Your task to perform on an android device: empty trash in google photos Image 0: 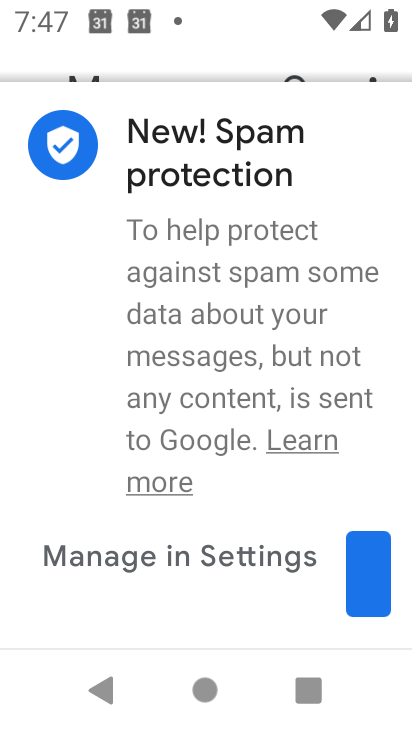
Step 0: press home button
Your task to perform on an android device: empty trash in google photos Image 1: 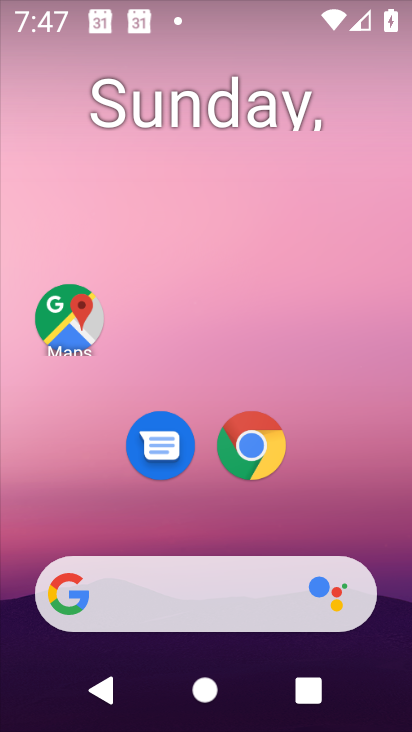
Step 1: drag from (45, 613) to (229, 194)
Your task to perform on an android device: empty trash in google photos Image 2: 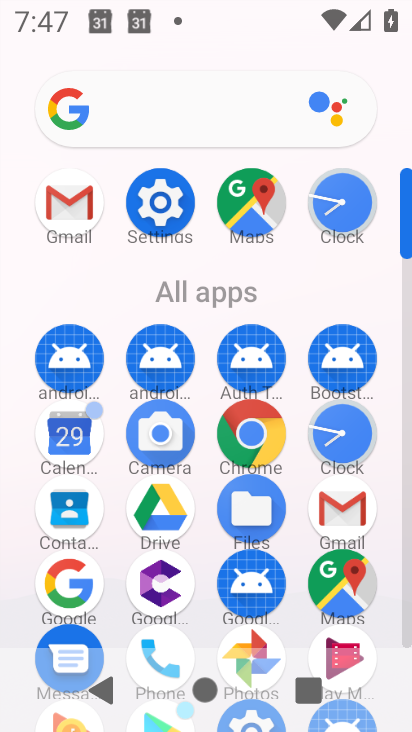
Step 2: click (248, 638)
Your task to perform on an android device: empty trash in google photos Image 3: 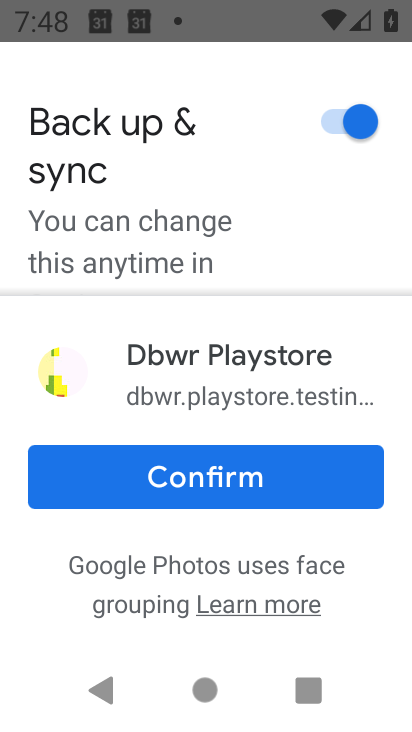
Step 3: click (154, 461)
Your task to perform on an android device: empty trash in google photos Image 4: 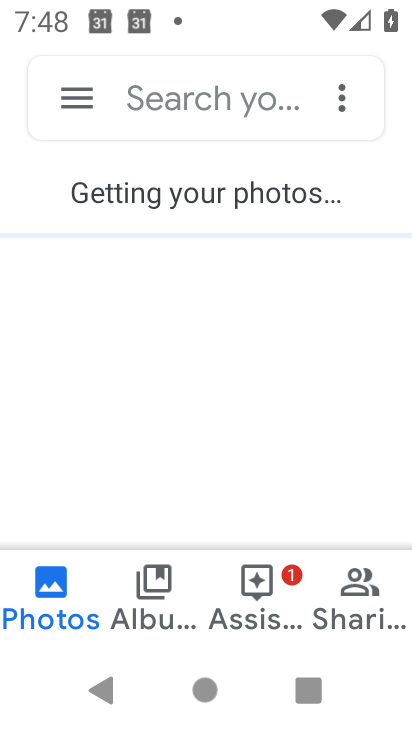
Step 4: click (62, 99)
Your task to perform on an android device: empty trash in google photos Image 5: 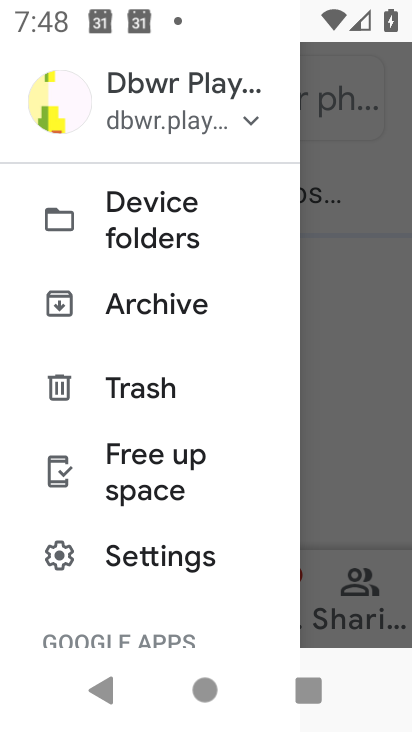
Step 5: click (141, 376)
Your task to perform on an android device: empty trash in google photos Image 6: 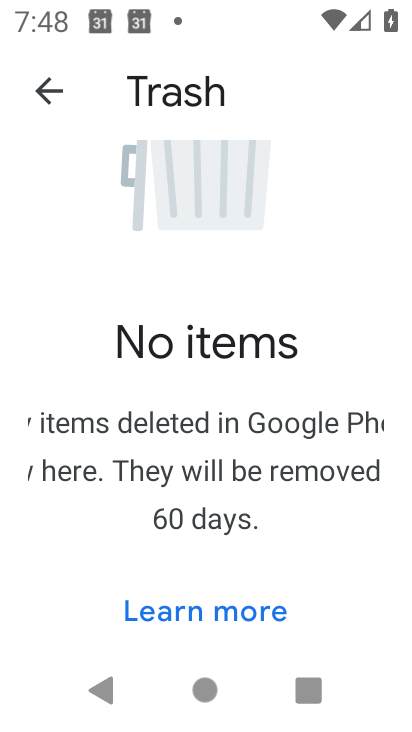
Step 6: task complete